Your task to perform on an android device: Go to Amazon Image 0: 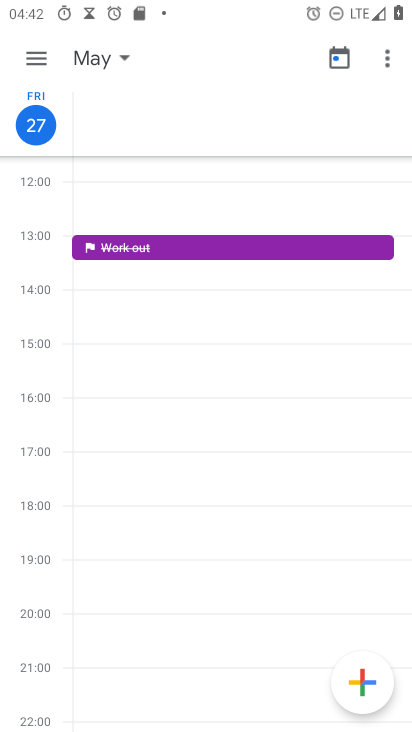
Step 0: press home button
Your task to perform on an android device: Go to Amazon Image 1: 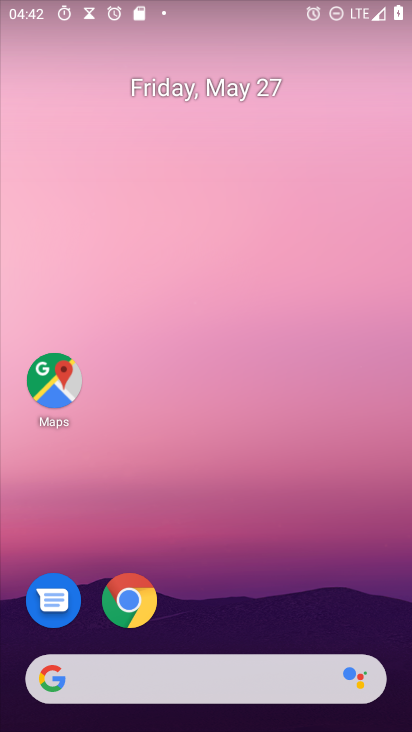
Step 1: click (130, 603)
Your task to perform on an android device: Go to Amazon Image 2: 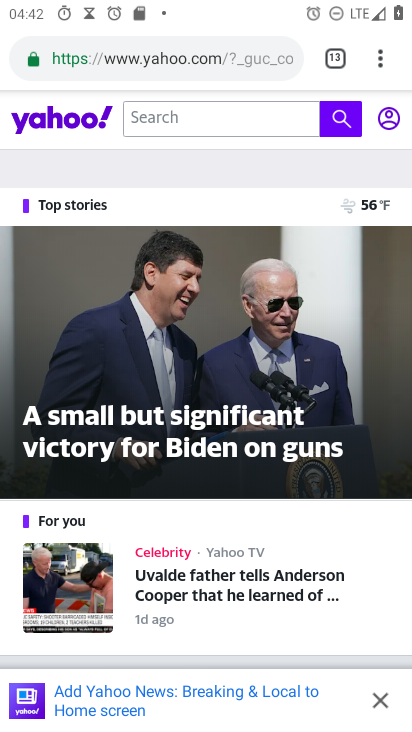
Step 2: click (377, 60)
Your task to perform on an android device: Go to Amazon Image 3: 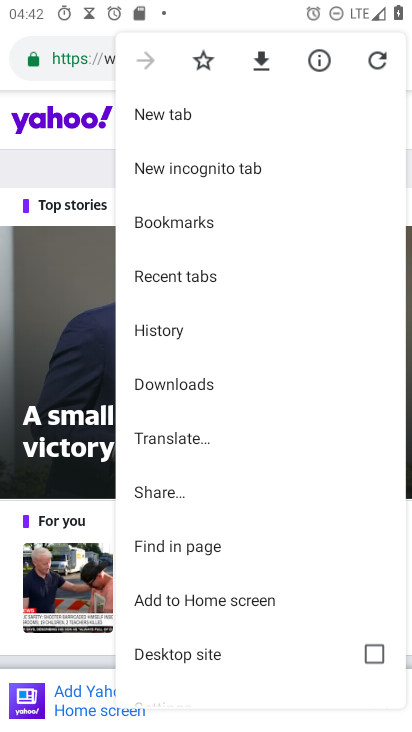
Step 3: click (175, 114)
Your task to perform on an android device: Go to Amazon Image 4: 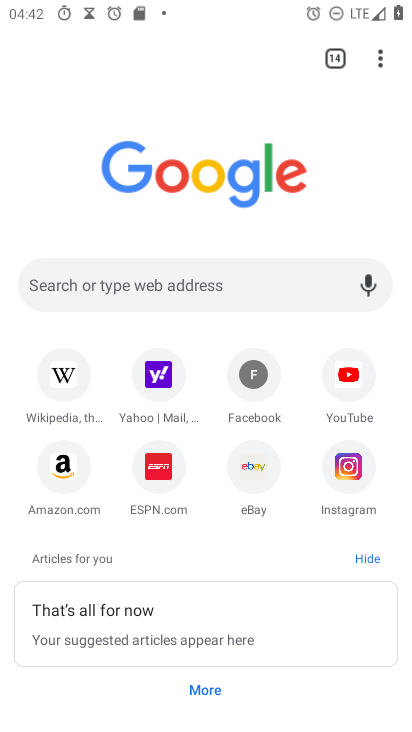
Step 4: click (58, 477)
Your task to perform on an android device: Go to Amazon Image 5: 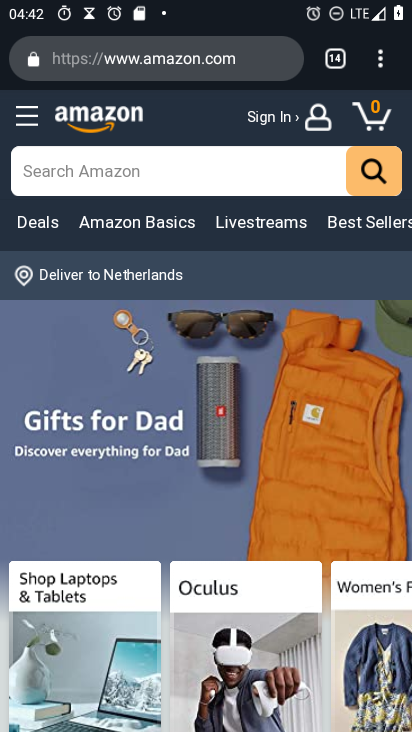
Step 5: task complete